Your task to perform on an android device: Go to privacy settings Image 0: 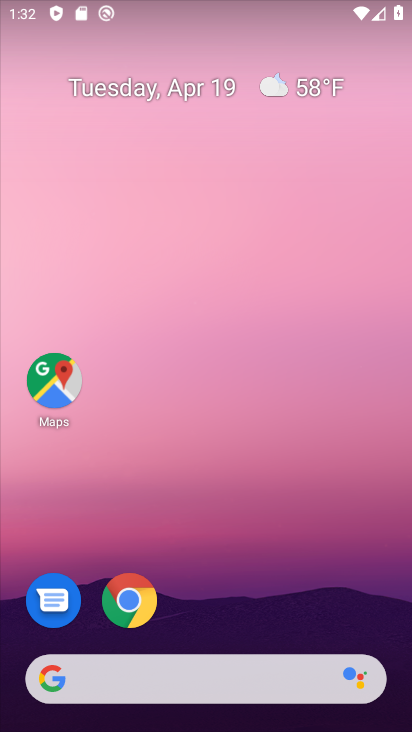
Step 0: click (117, 603)
Your task to perform on an android device: Go to privacy settings Image 1: 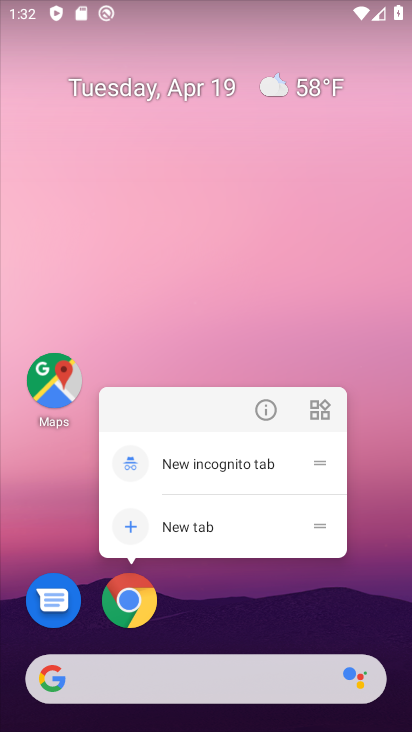
Step 1: drag from (190, 600) to (207, 10)
Your task to perform on an android device: Go to privacy settings Image 2: 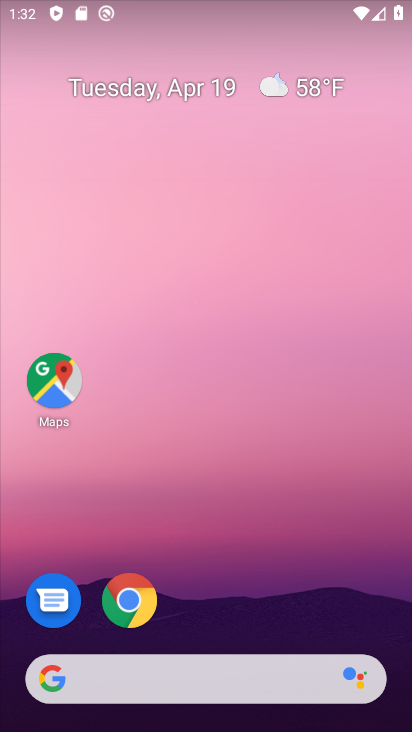
Step 2: click (202, 644)
Your task to perform on an android device: Go to privacy settings Image 3: 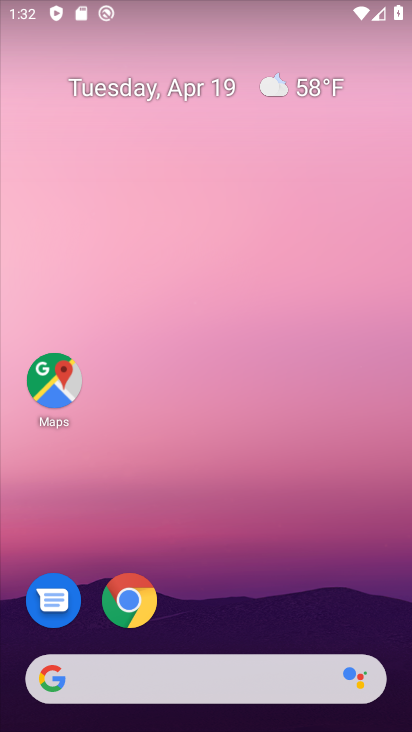
Step 3: drag from (184, 689) to (176, 10)
Your task to perform on an android device: Go to privacy settings Image 4: 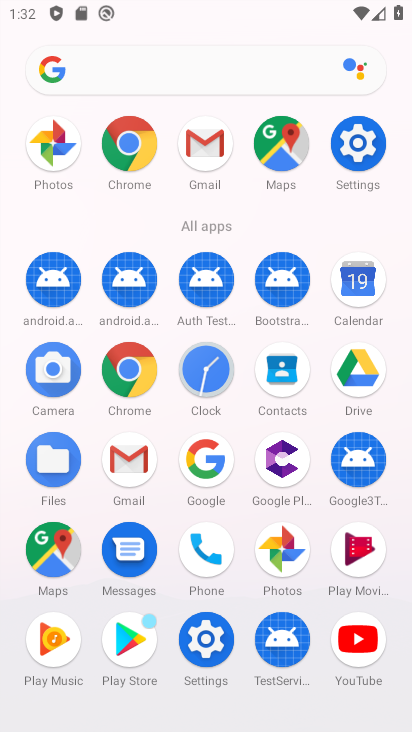
Step 4: click (344, 160)
Your task to perform on an android device: Go to privacy settings Image 5: 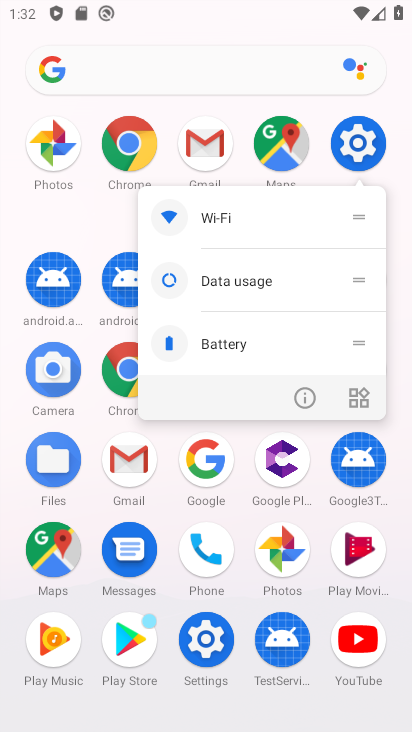
Step 5: click (344, 157)
Your task to perform on an android device: Go to privacy settings Image 6: 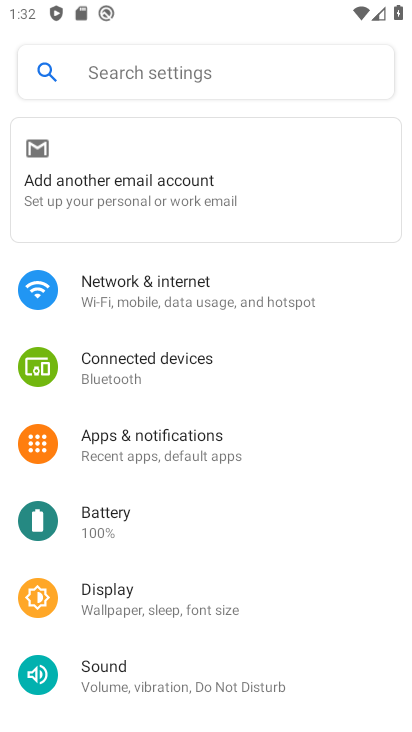
Step 6: drag from (128, 667) to (221, 56)
Your task to perform on an android device: Go to privacy settings Image 7: 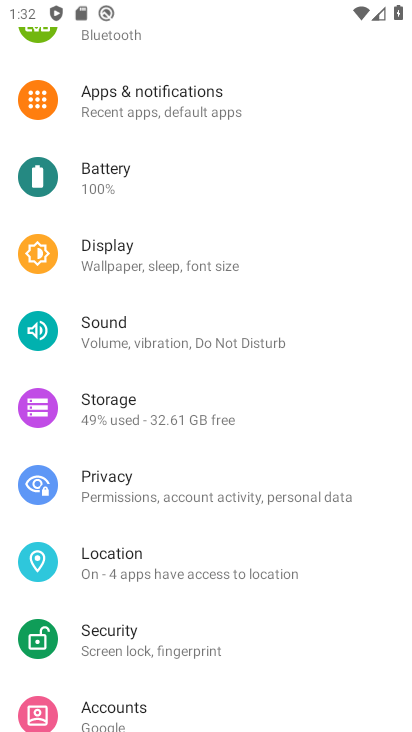
Step 7: click (155, 504)
Your task to perform on an android device: Go to privacy settings Image 8: 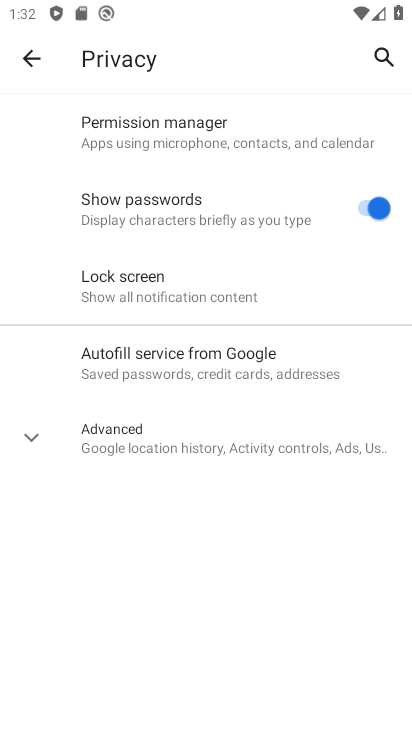
Step 8: task complete